Your task to perform on an android device: Open Yahoo.com Image 0: 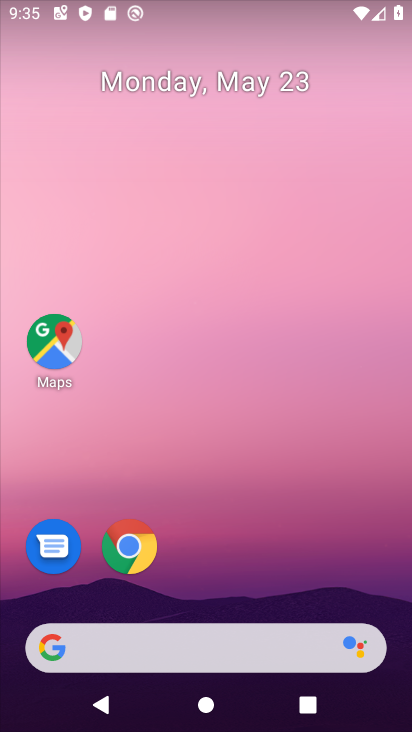
Step 0: click (132, 550)
Your task to perform on an android device: Open Yahoo.com Image 1: 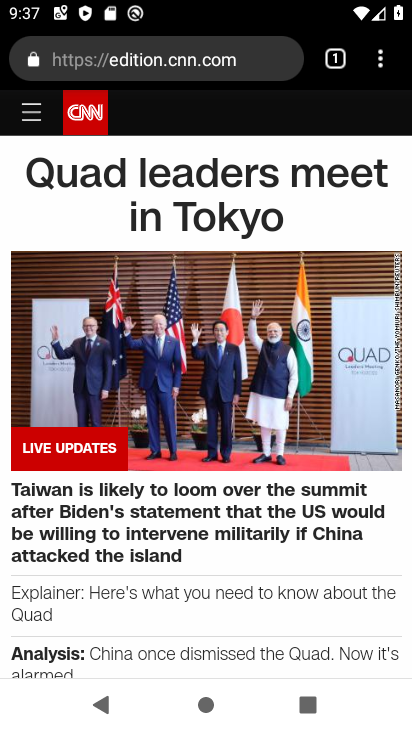
Step 1: click (230, 54)
Your task to perform on an android device: Open Yahoo.com Image 2: 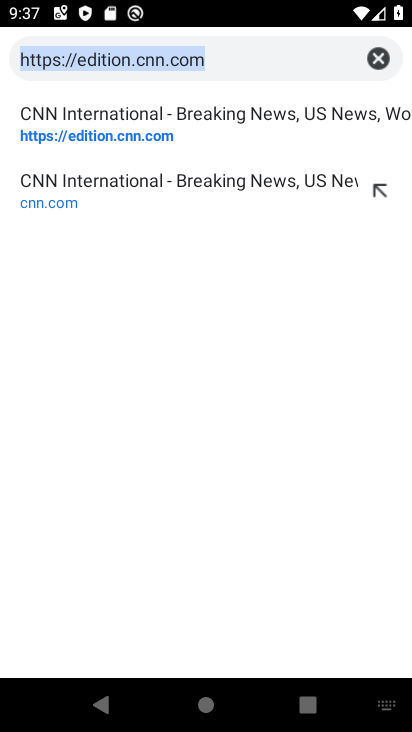
Step 2: click (375, 58)
Your task to perform on an android device: Open Yahoo.com Image 3: 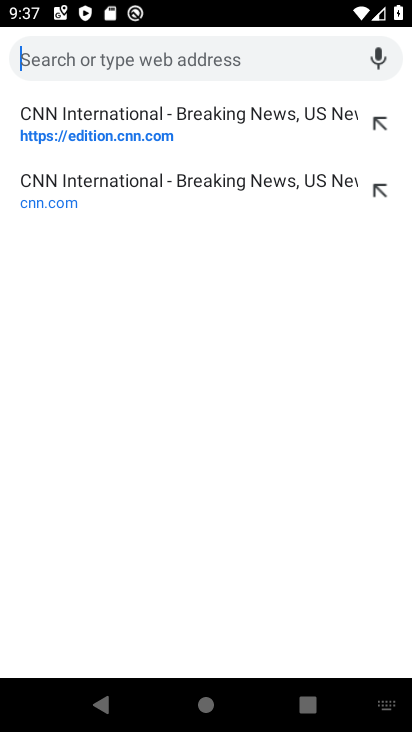
Step 3: type "yahoo.com"
Your task to perform on an android device: Open Yahoo.com Image 4: 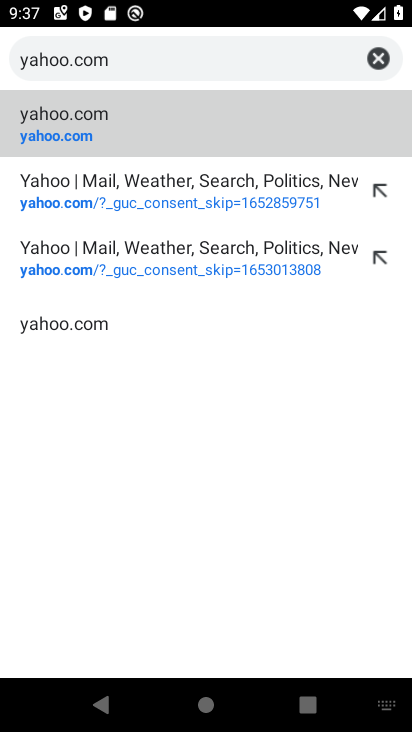
Step 4: click (72, 110)
Your task to perform on an android device: Open Yahoo.com Image 5: 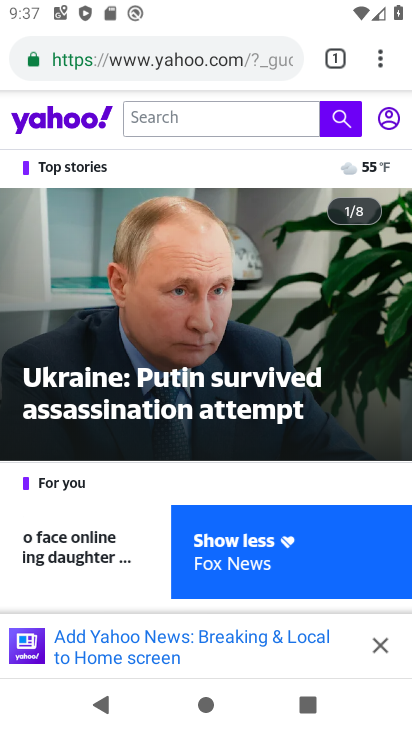
Step 5: task complete